Your task to perform on an android device: Open location settings Image 0: 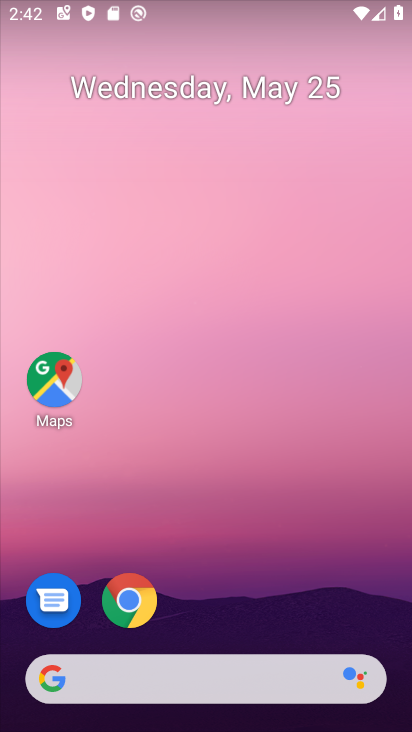
Step 0: press home button
Your task to perform on an android device: Open location settings Image 1: 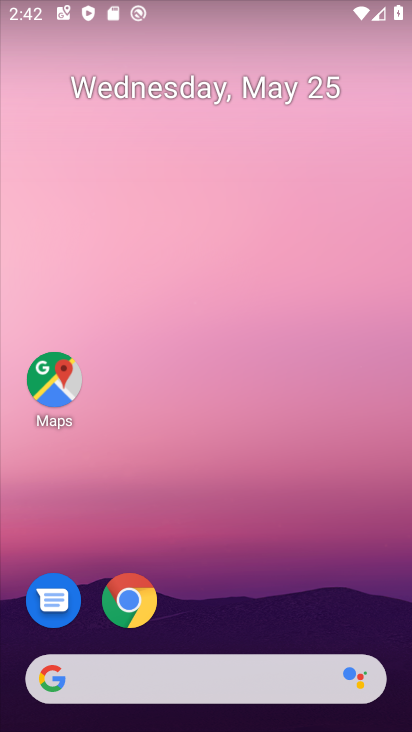
Step 1: drag from (33, 547) to (228, 84)
Your task to perform on an android device: Open location settings Image 2: 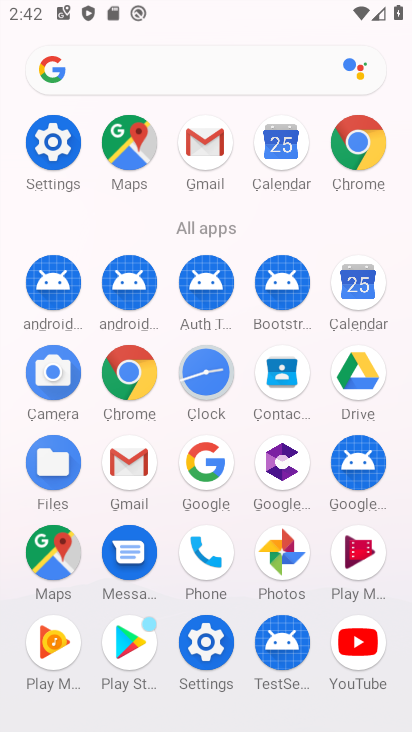
Step 2: click (66, 126)
Your task to perform on an android device: Open location settings Image 3: 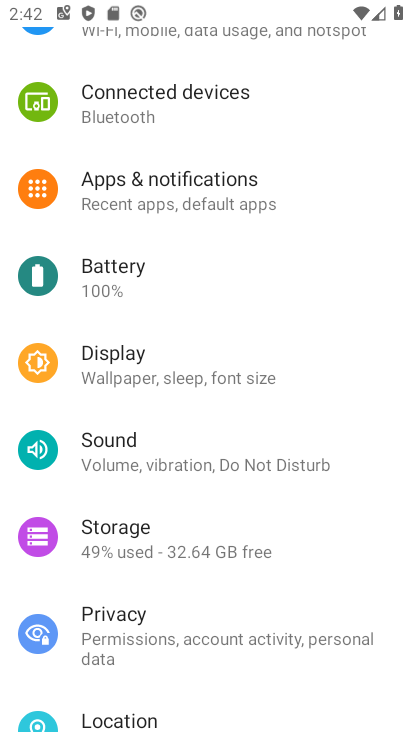
Step 3: click (86, 717)
Your task to perform on an android device: Open location settings Image 4: 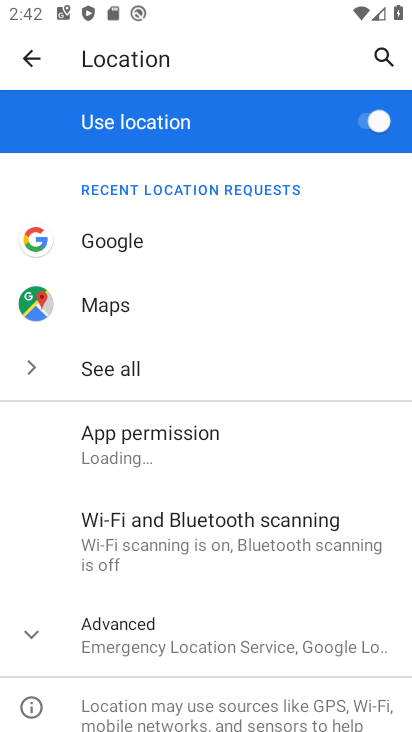
Step 4: task complete